Your task to perform on an android device: Search for hotels in Atlanta Image 0: 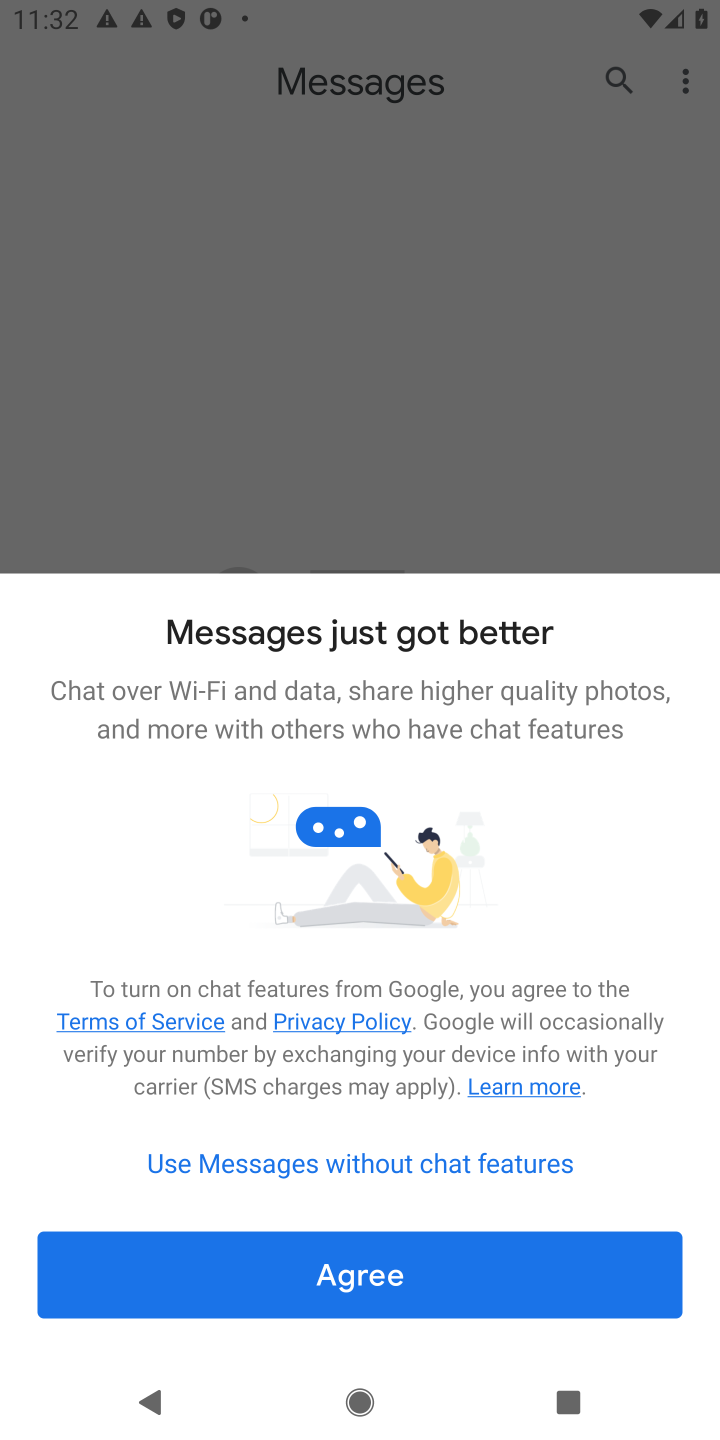
Step 0: press home button
Your task to perform on an android device: Search for hotels in Atlanta Image 1: 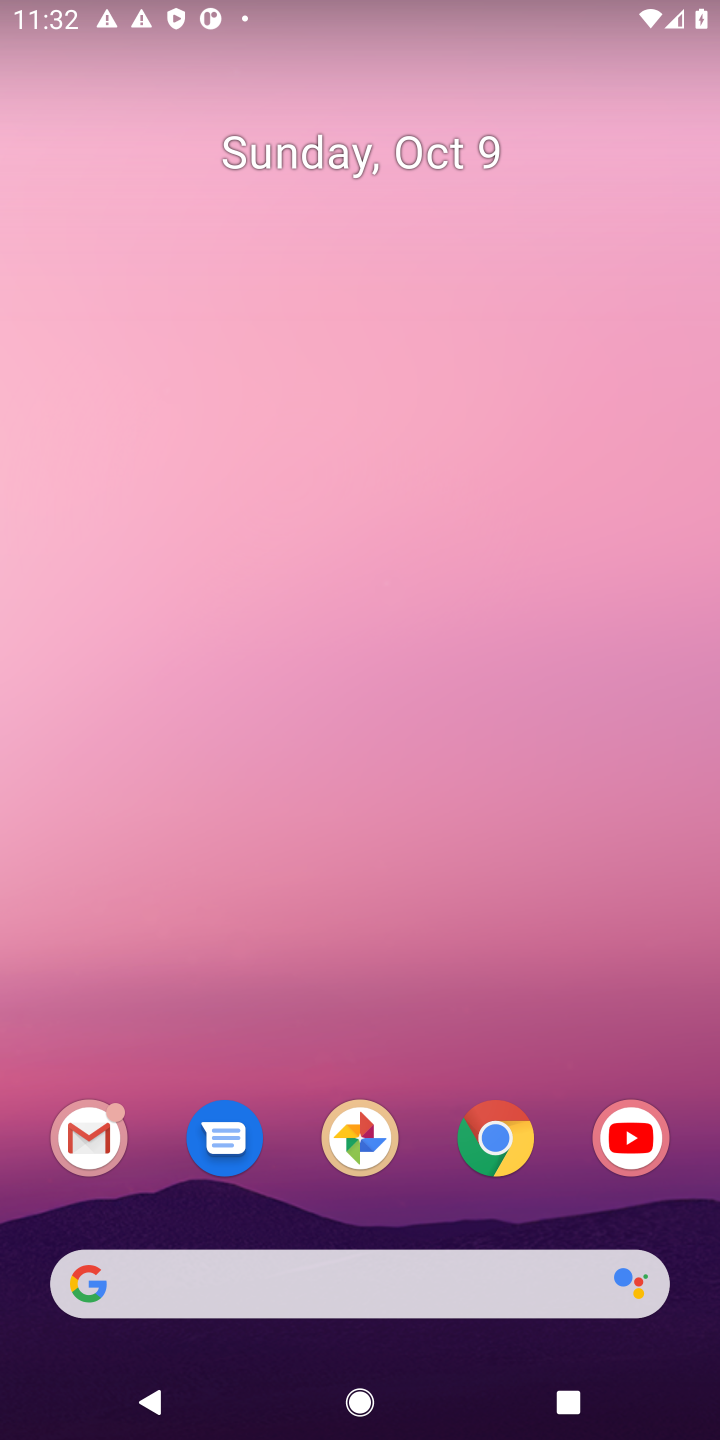
Step 1: click (487, 1138)
Your task to perform on an android device: Search for hotels in Atlanta Image 2: 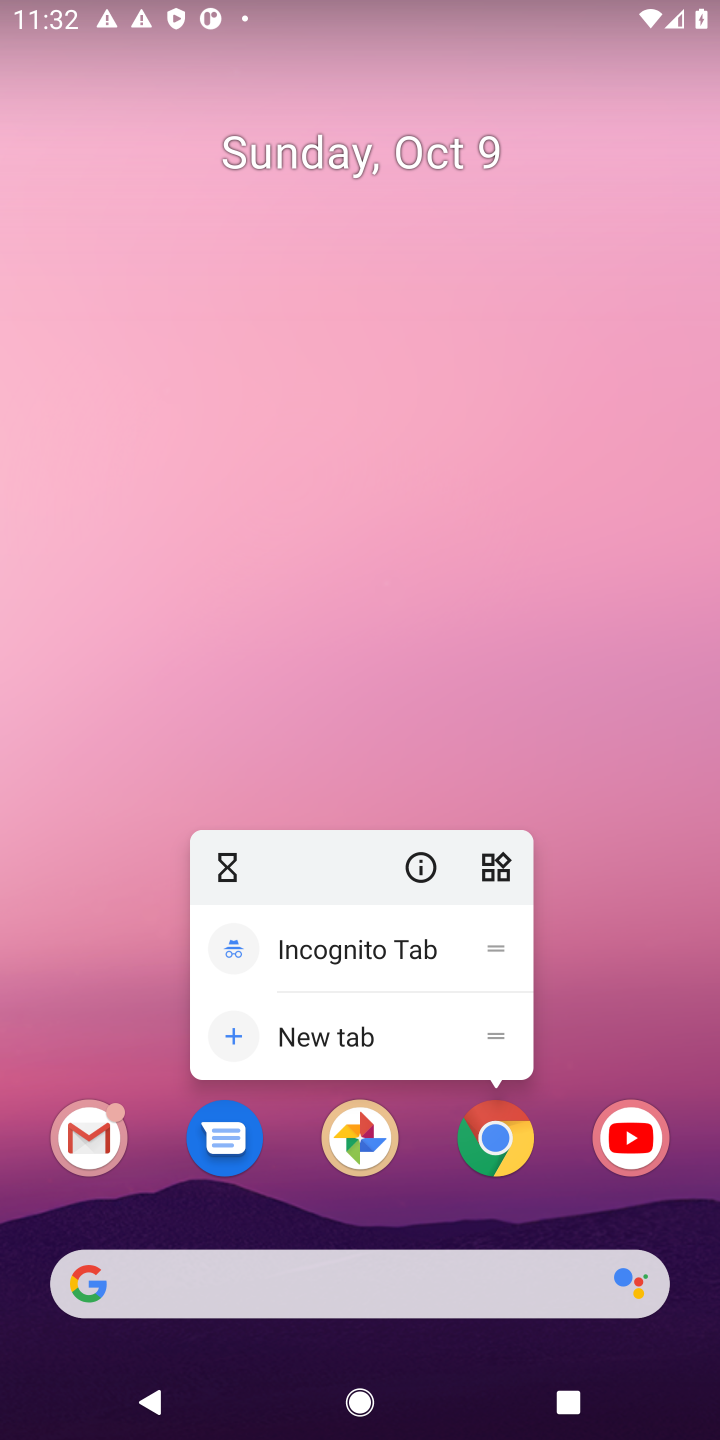
Step 2: click (490, 1126)
Your task to perform on an android device: Search for hotels in Atlanta Image 3: 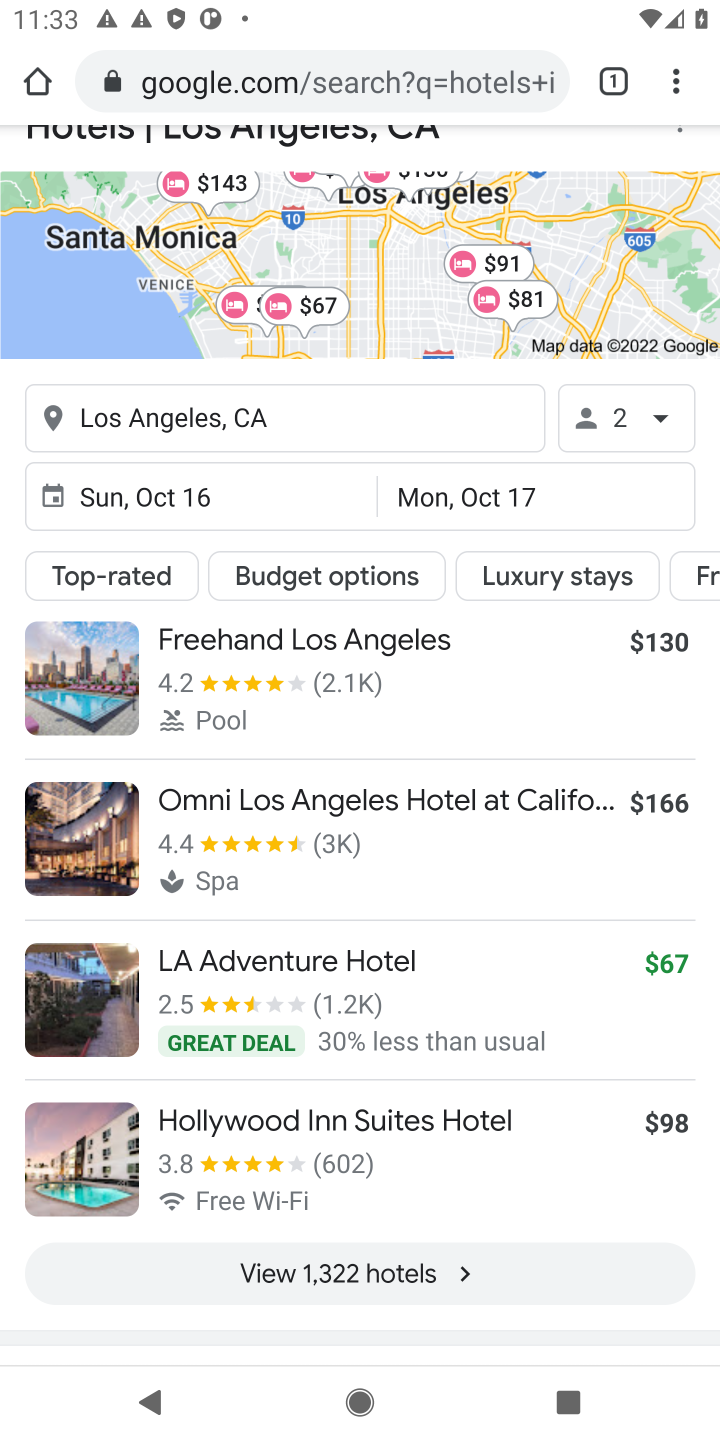
Step 3: click (406, 77)
Your task to perform on an android device: Search for hotels in Atlanta Image 4: 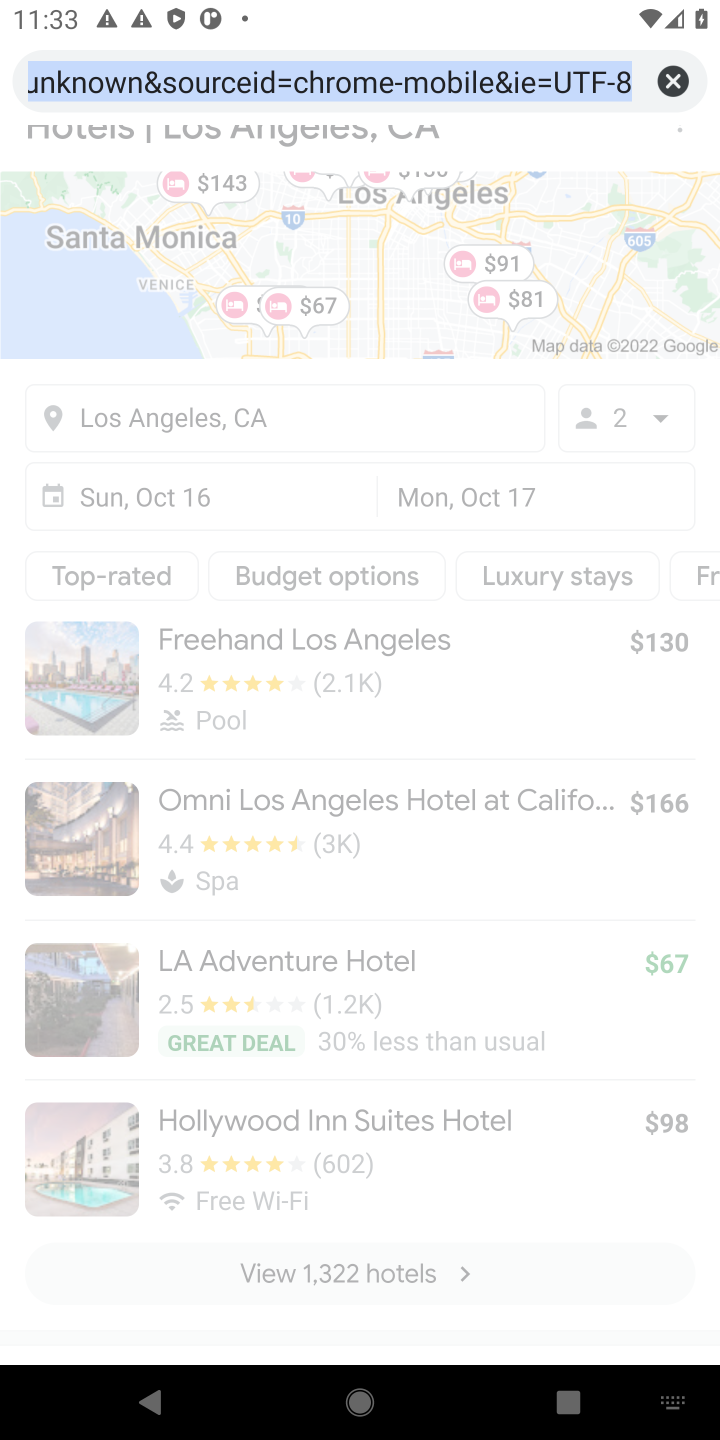
Step 4: type "hotels in atlanta"
Your task to perform on an android device: Search for hotels in Atlanta Image 5: 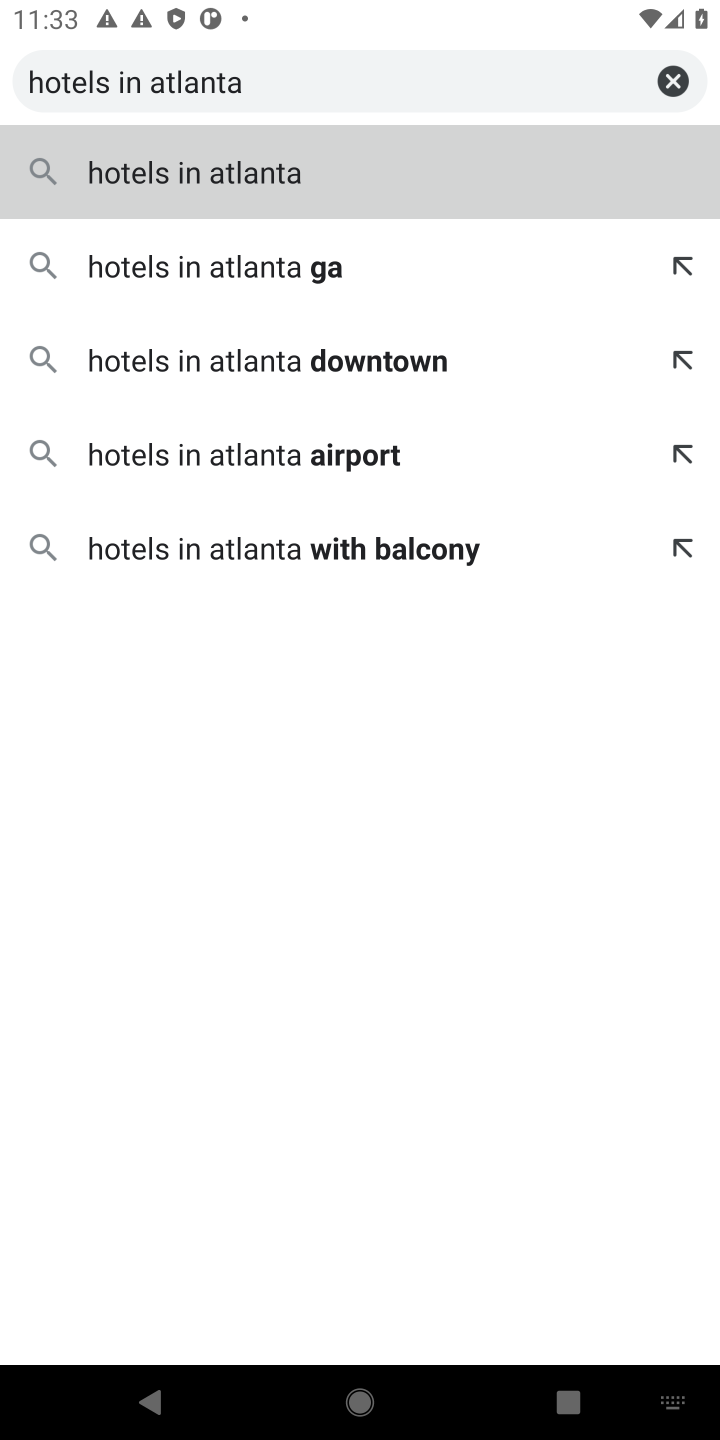
Step 5: click (363, 182)
Your task to perform on an android device: Search for hotels in Atlanta Image 6: 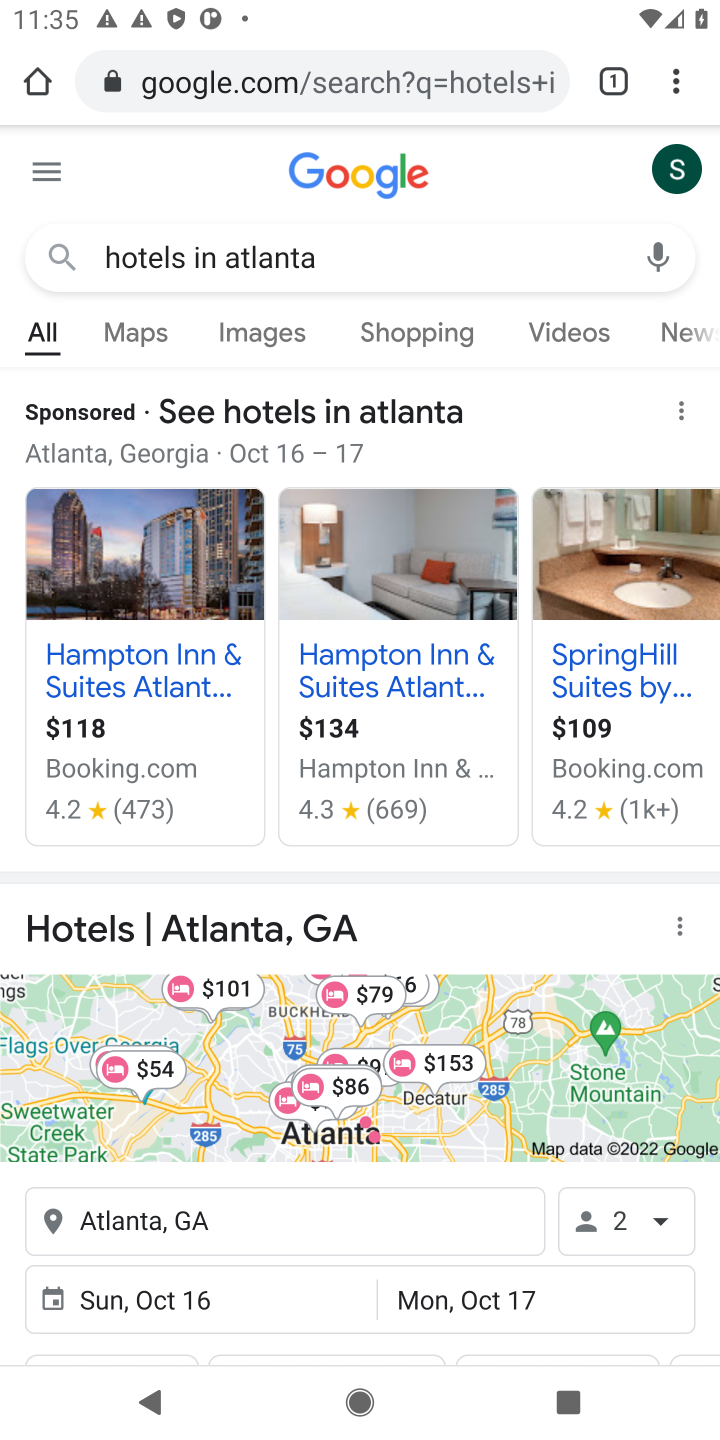
Step 6: task complete